Your task to perform on an android device: Search for a new eyeshadow Image 0: 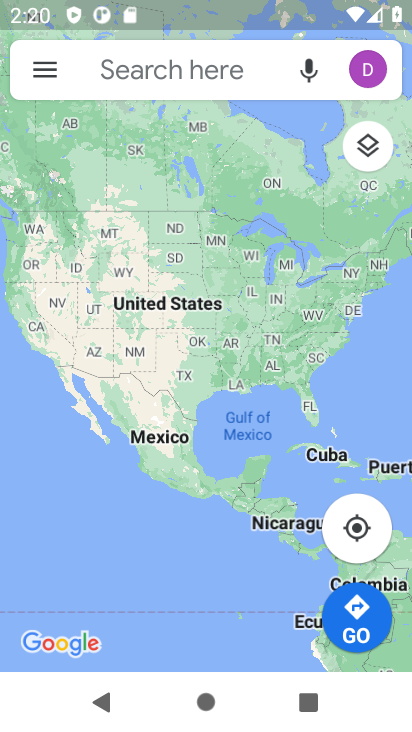
Step 0: press home button
Your task to perform on an android device: Search for a new eyeshadow Image 1: 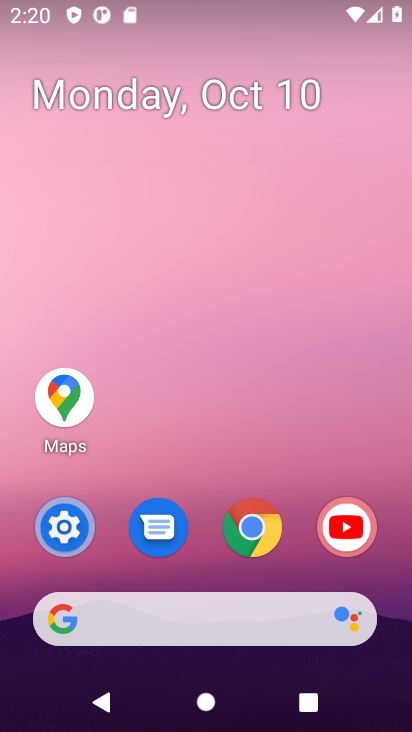
Step 1: click (254, 530)
Your task to perform on an android device: Search for a new eyeshadow Image 2: 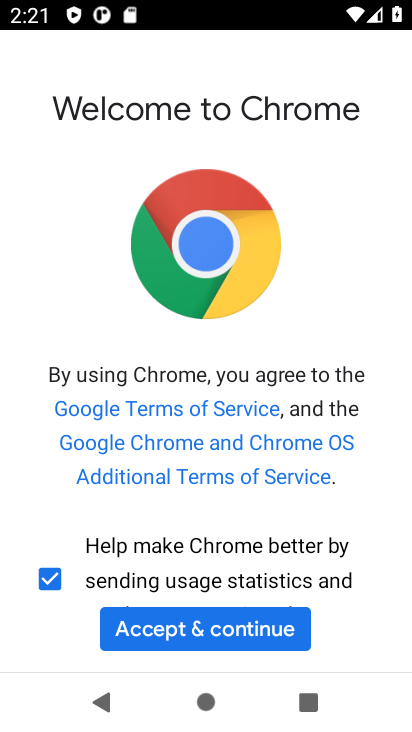
Step 2: click (190, 625)
Your task to perform on an android device: Search for a new eyeshadow Image 3: 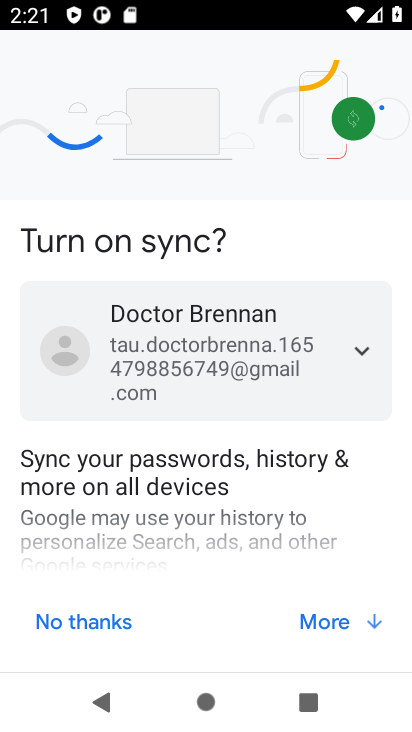
Step 3: click (320, 622)
Your task to perform on an android device: Search for a new eyeshadow Image 4: 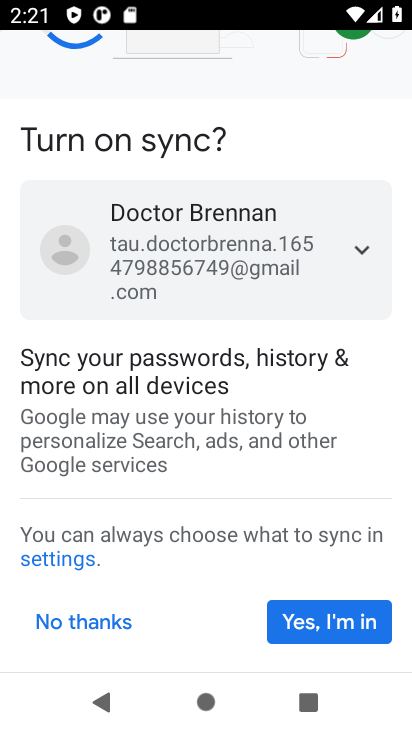
Step 4: click (320, 622)
Your task to perform on an android device: Search for a new eyeshadow Image 5: 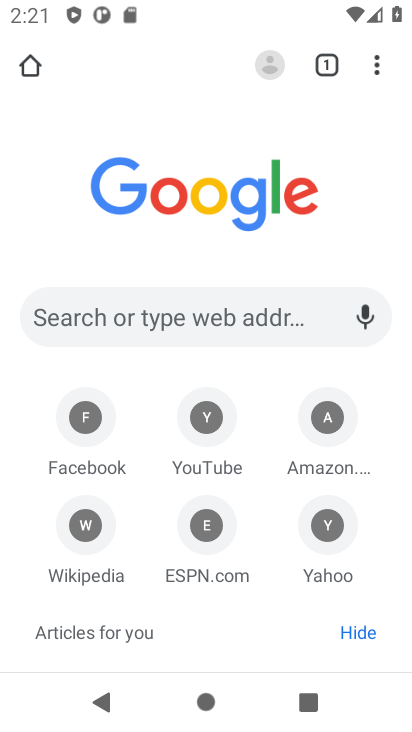
Step 5: click (160, 315)
Your task to perform on an android device: Search for a new eyeshadow Image 6: 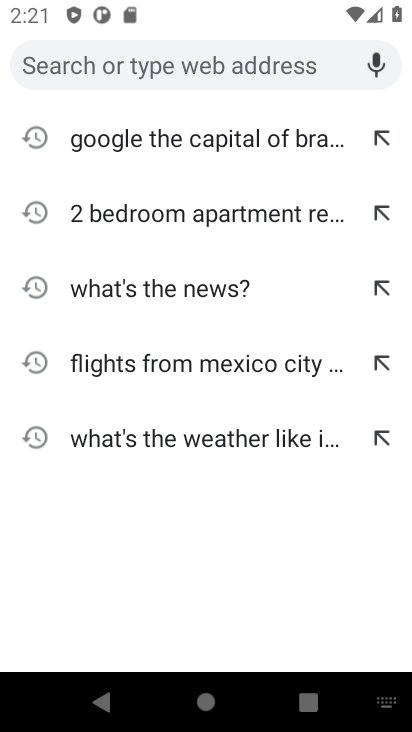
Step 6: type "new eyeshadow"
Your task to perform on an android device: Search for a new eyeshadow Image 7: 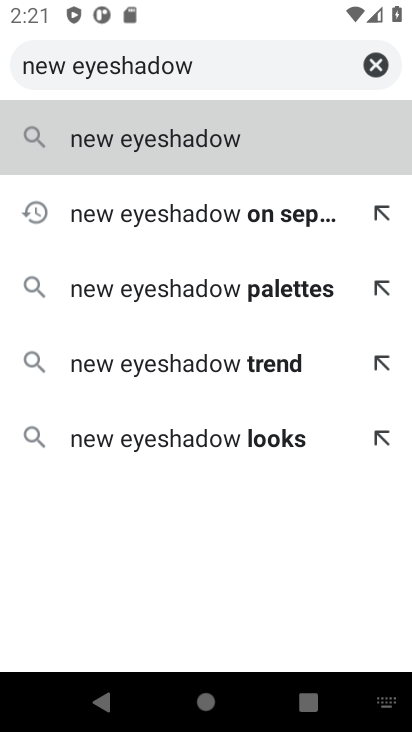
Step 7: click (171, 149)
Your task to perform on an android device: Search for a new eyeshadow Image 8: 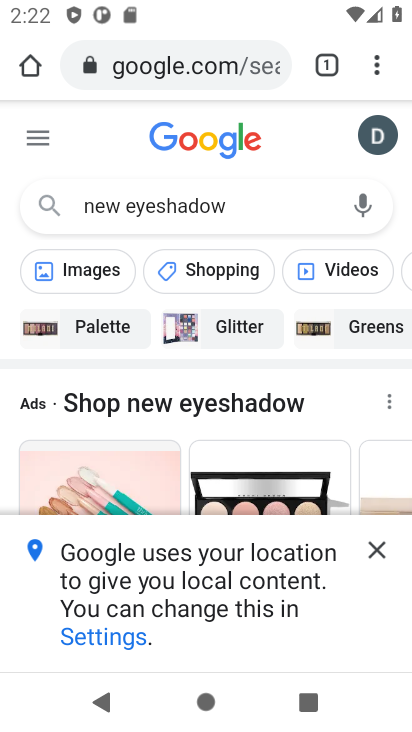
Step 8: click (372, 548)
Your task to perform on an android device: Search for a new eyeshadow Image 9: 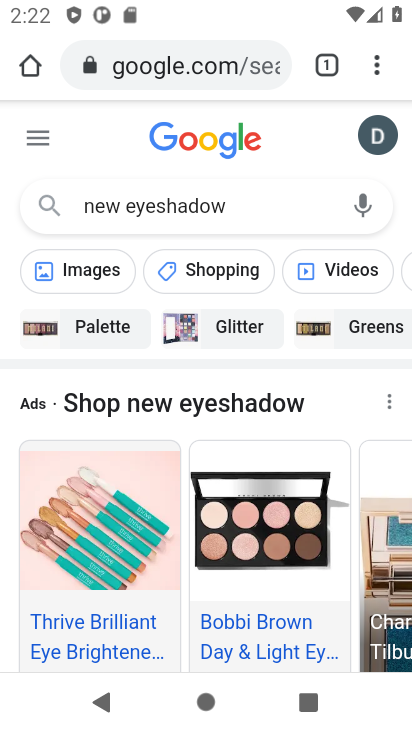
Step 9: task complete